Your task to perform on an android device: Open the stopwatch Image 0: 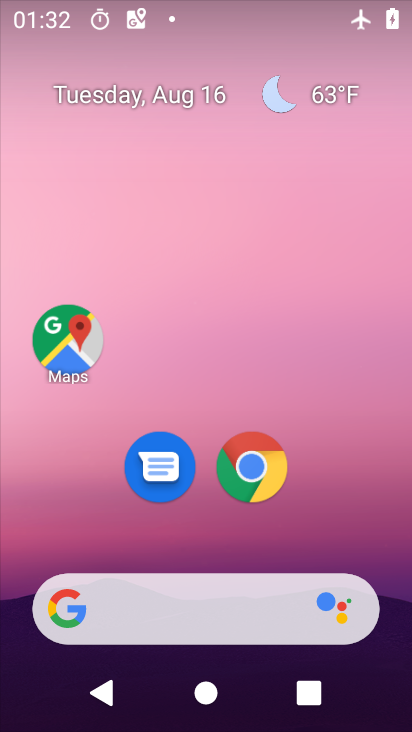
Step 0: press home button
Your task to perform on an android device: Open the stopwatch Image 1: 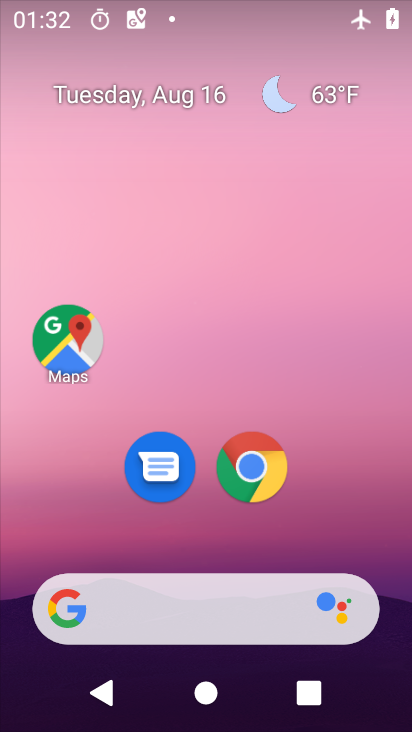
Step 1: drag from (368, 552) to (354, 231)
Your task to perform on an android device: Open the stopwatch Image 2: 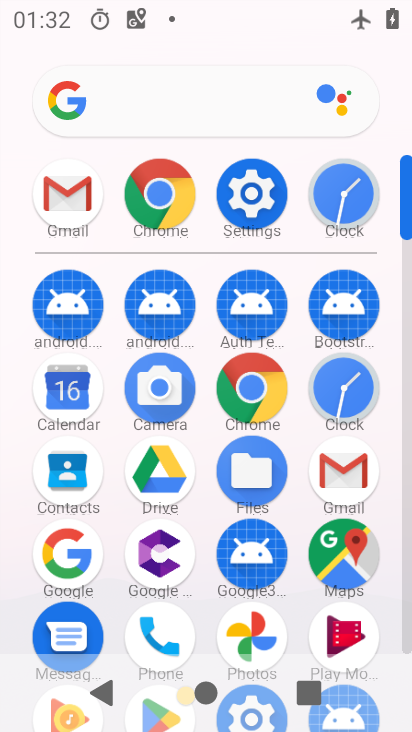
Step 2: click (344, 392)
Your task to perform on an android device: Open the stopwatch Image 3: 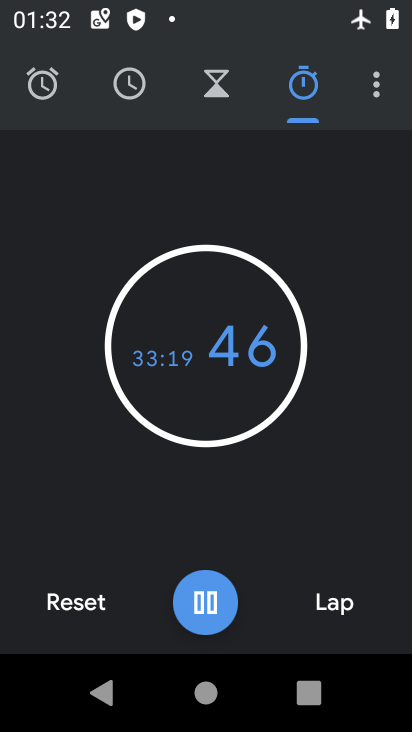
Step 3: task complete